Your task to perform on an android device: Open display settings Image 0: 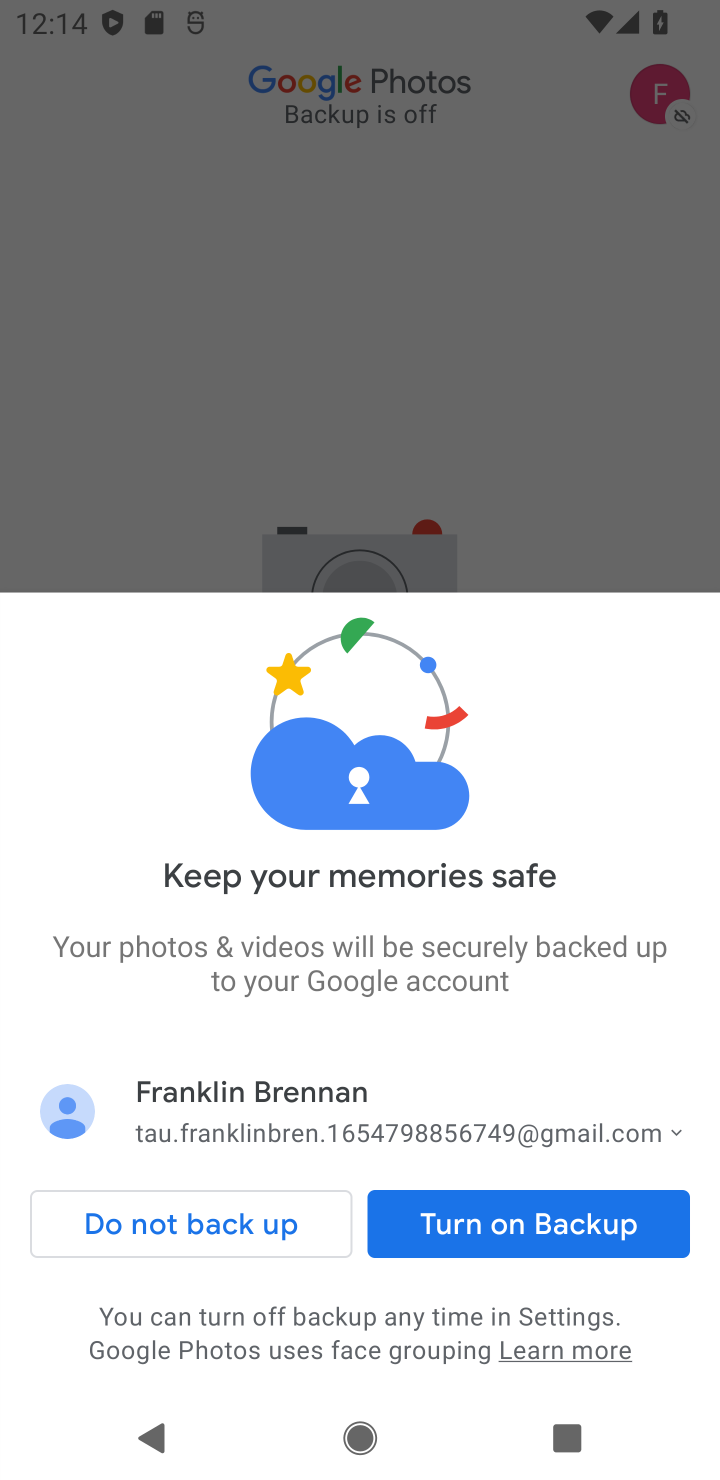
Step 0: press home button
Your task to perform on an android device: Open display settings Image 1: 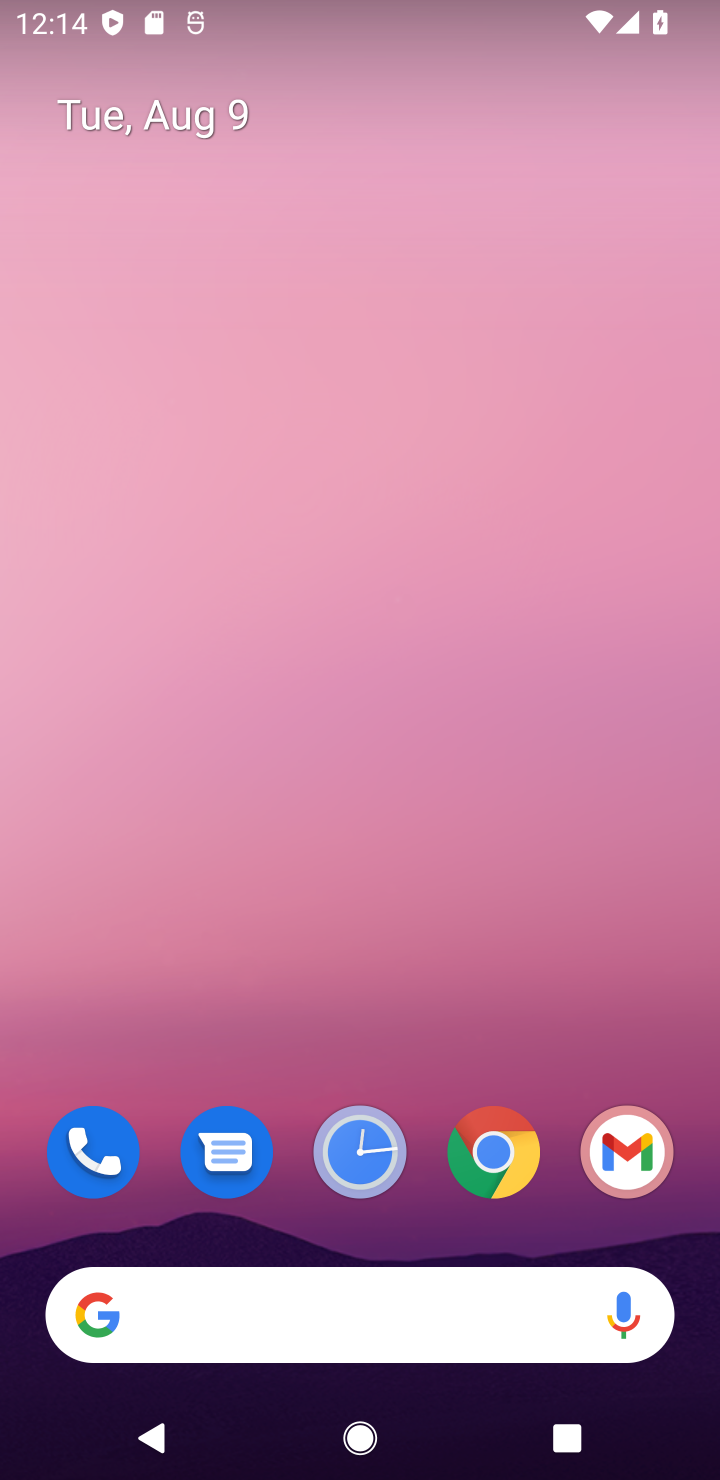
Step 1: drag from (385, 1061) to (308, 258)
Your task to perform on an android device: Open display settings Image 2: 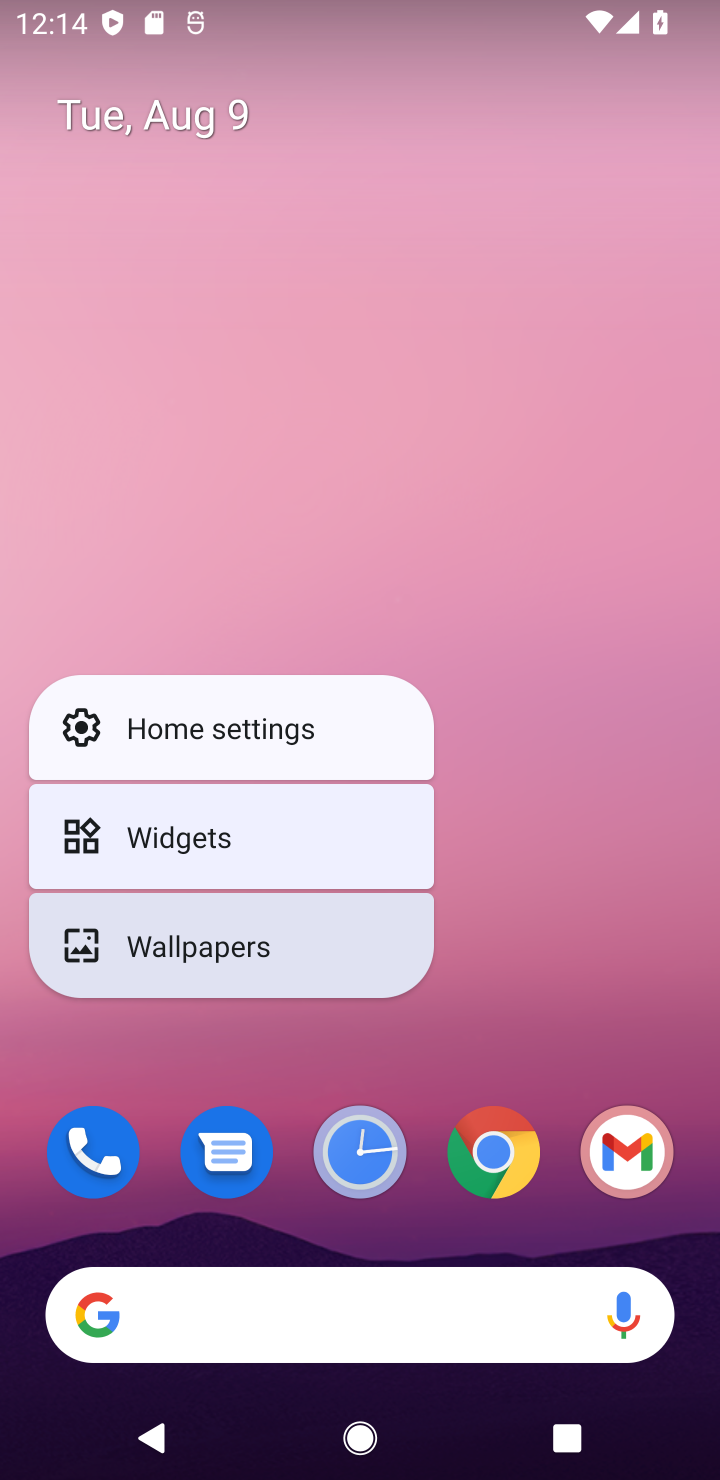
Step 2: click (632, 1049)
Your task to perform on an android device: Open display settings Image 3: 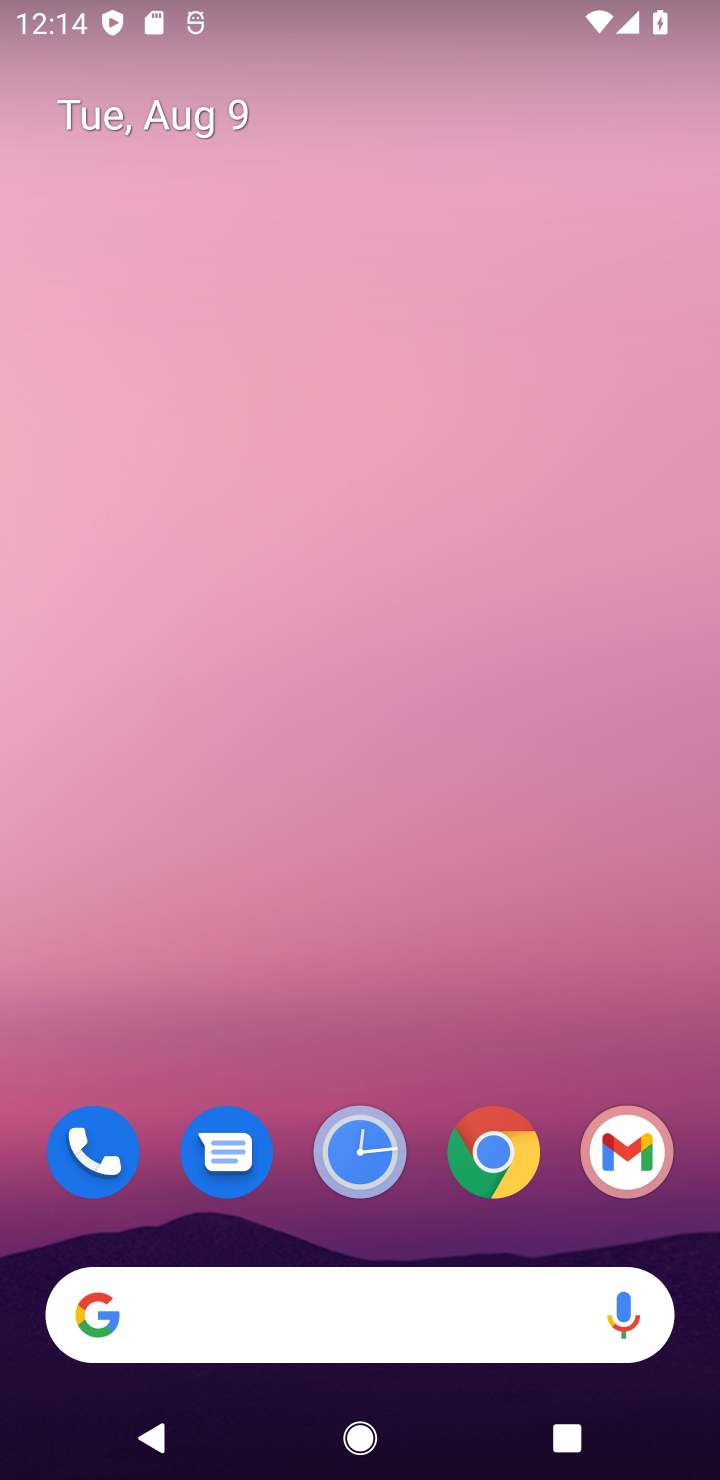
Step 3: drag from (501, 1039) to (469, 357)
Your task to perform on an android device: Open display settings Image 4: 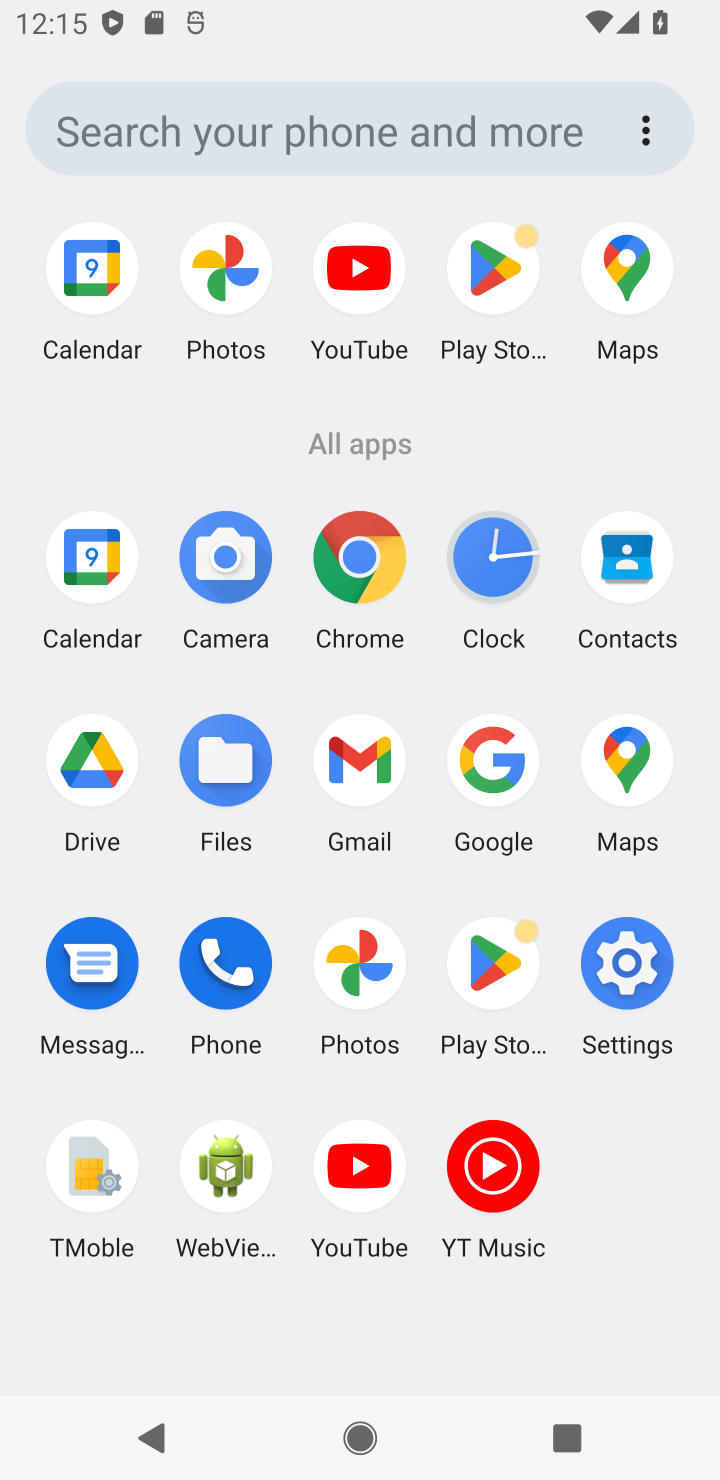
Step 4: click (642, 950)
Your task to perform on an android device: Open display settings Image 5: 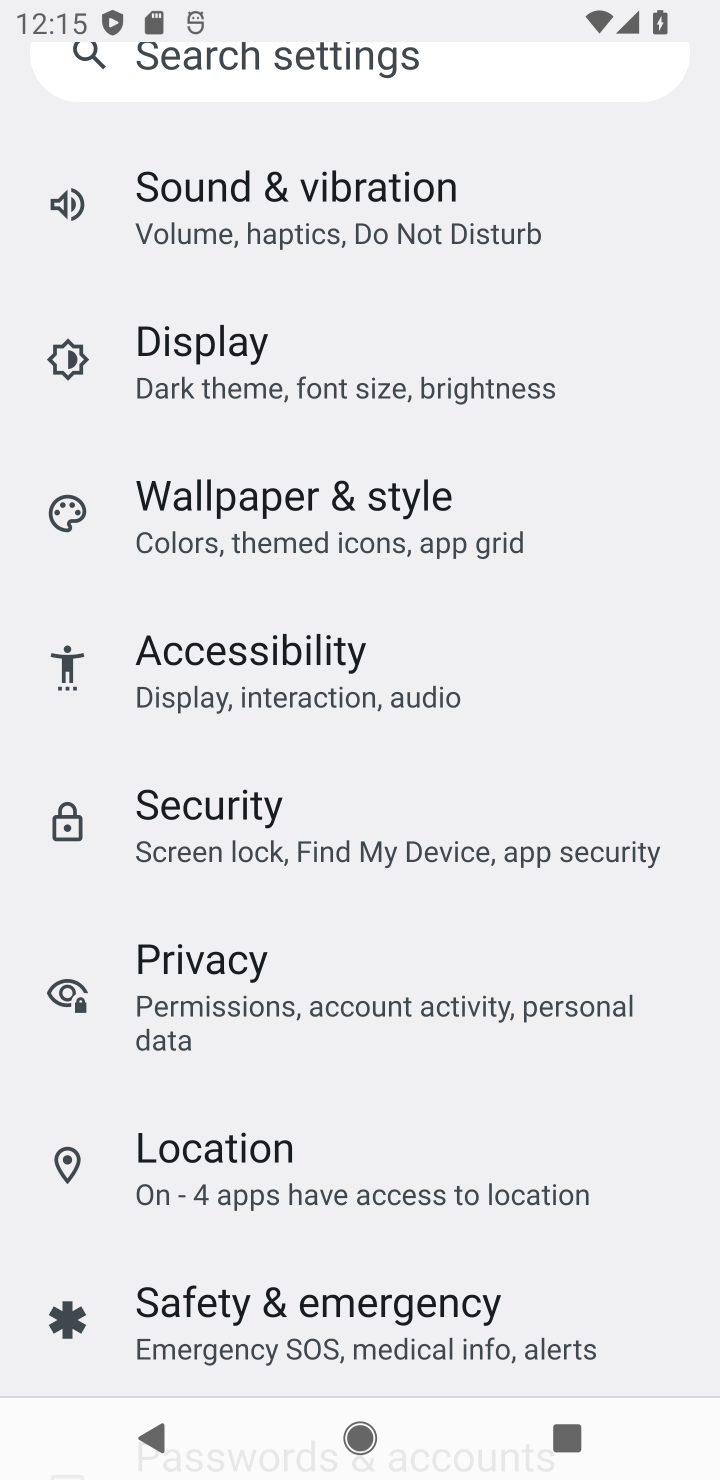
Step 5: click (490, 367)
Your task to perform on an android device: Open display settings Image 6: 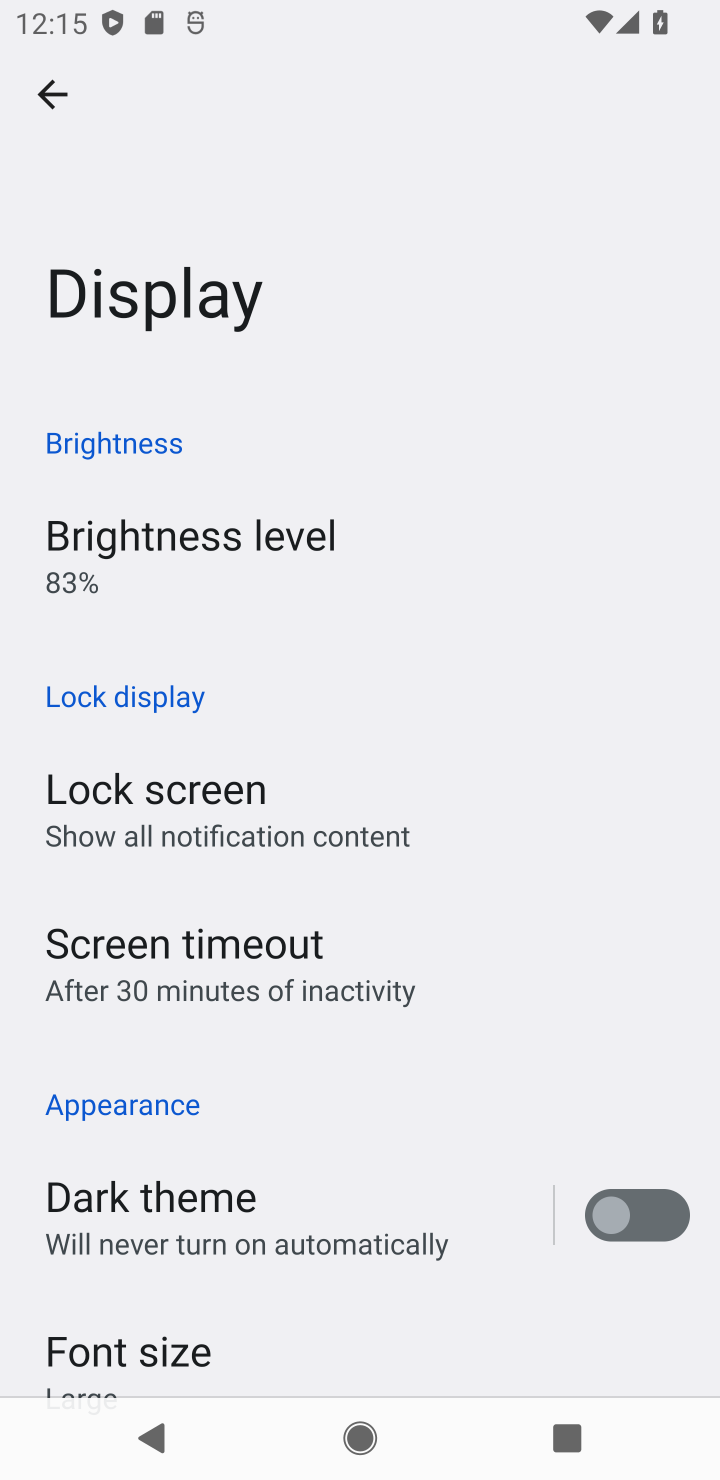
Step 6: task complete